Your task to perform on an android device: When is my next meeting? Image 0: 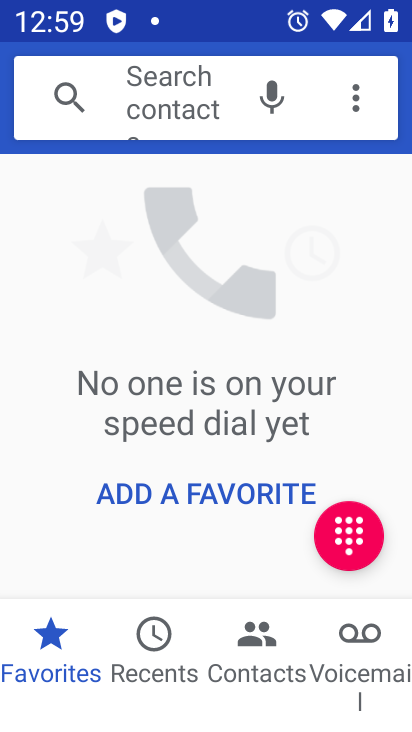
Step 0: press home button
Your task to perform on an android device: When is my next meeting? Image 1: 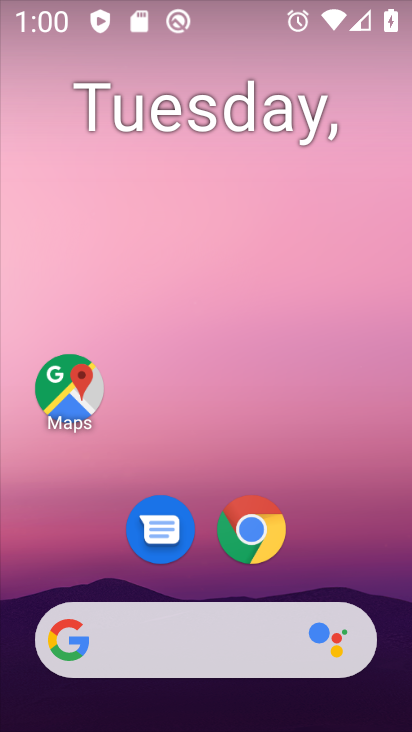
Step 1: drag from (235, 604) to (214, 116)
Your task to perform on an android device: When is my next meeting? Image 2: 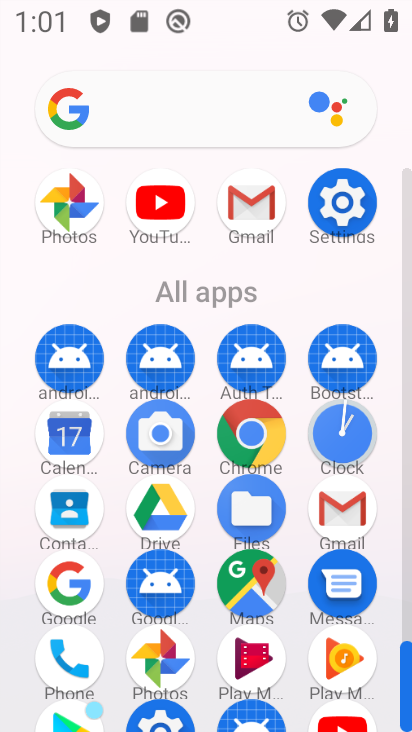
Step 2: click (76, 452)
Your task to perform on an android device: When is my next meeting? Image 3: 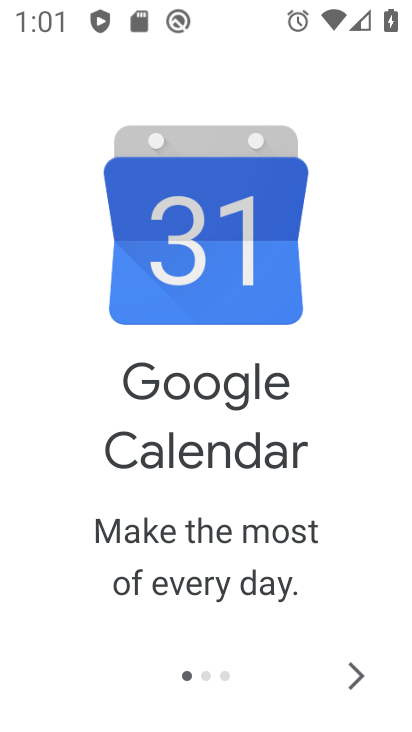
Step 3: click (362, 681)
Your task to perform on an android device: When is my next meeting? Image 4: 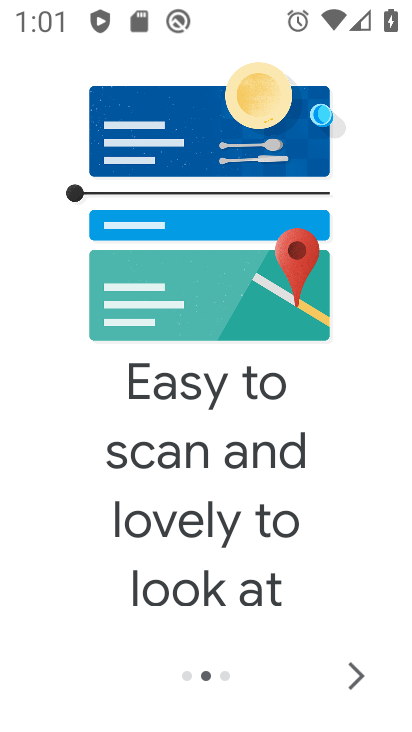
Step 4: click (362, 681)
Your task to perform on an android device: When is my next meeting? Image 5: 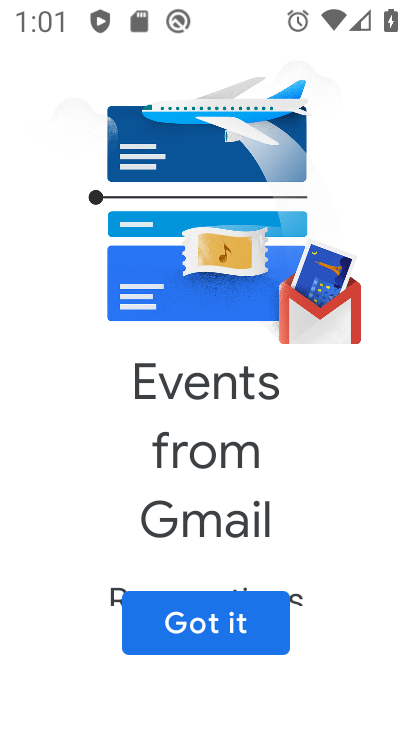
Step 5: click (217, 637)
Your task to perform on an android device: When is my next meeting? Image 6: 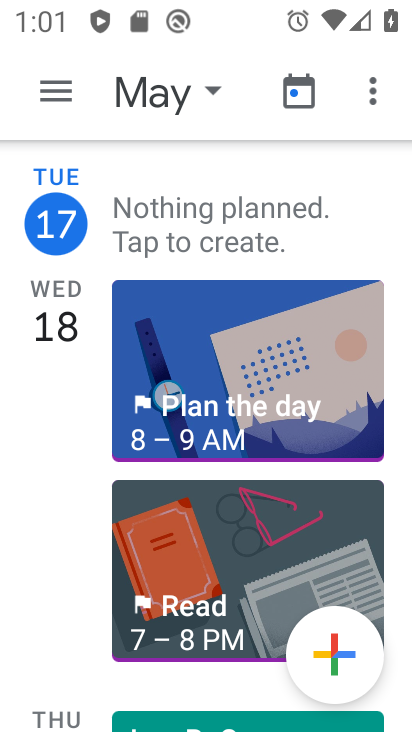
Step 6: task complete